Your task to perform on an android device: change alarm snooze length Image 0: 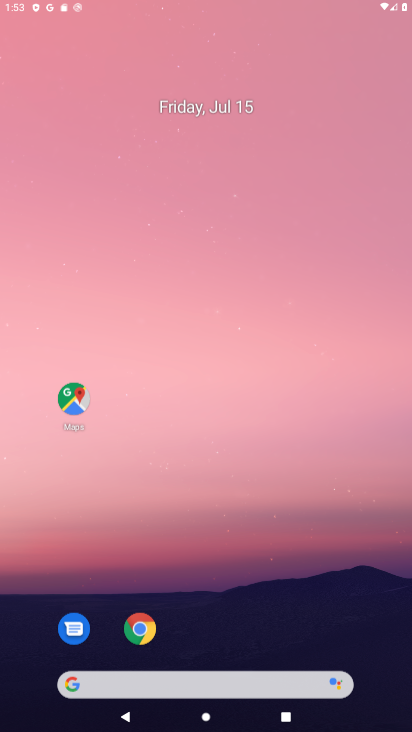
Step 0: press home button
Your task to perform on an android device: change alarm snooze length Image 1: 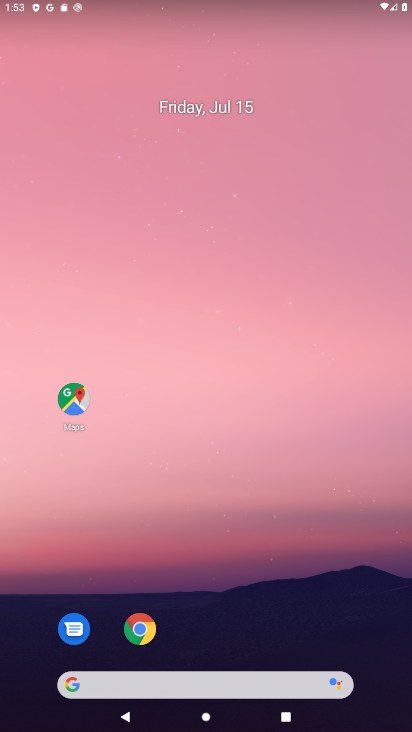
Step 1: drag from (213, 645) to (145, 88)
Your task to perform on an android device: change alarm snooze length Image 2: 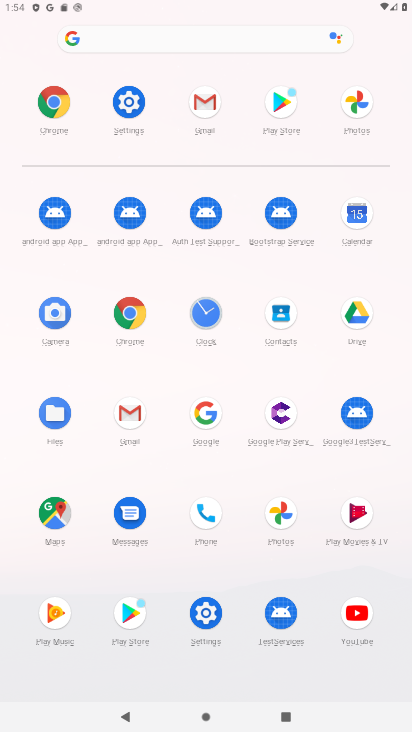
Step 2: click (198, 334)
Your task to perform on an android device: change alarm snooze length Image 3: 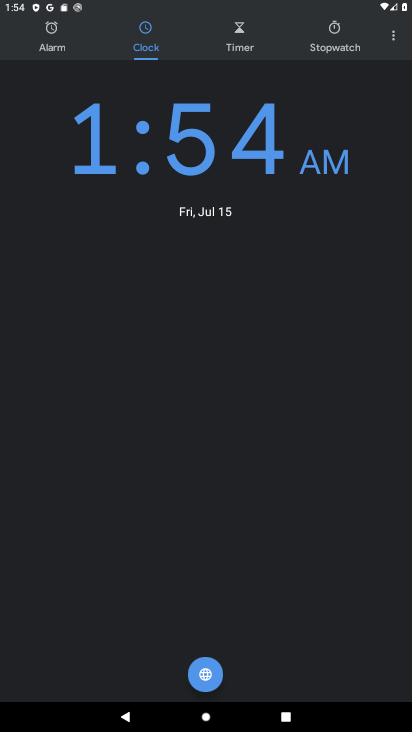
Step 3: click (391, 37)
Your task to perform on an android device: change alarm snooze length Image 4: 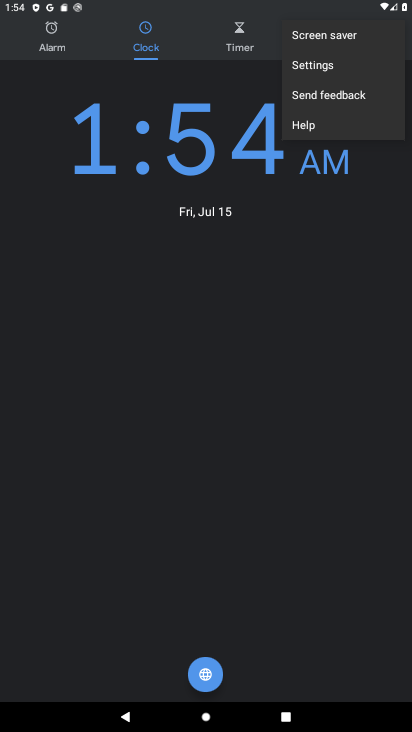
Step 4: click (336, 65)
Your task to perform on an android device: change alarm snooze length Image 5: 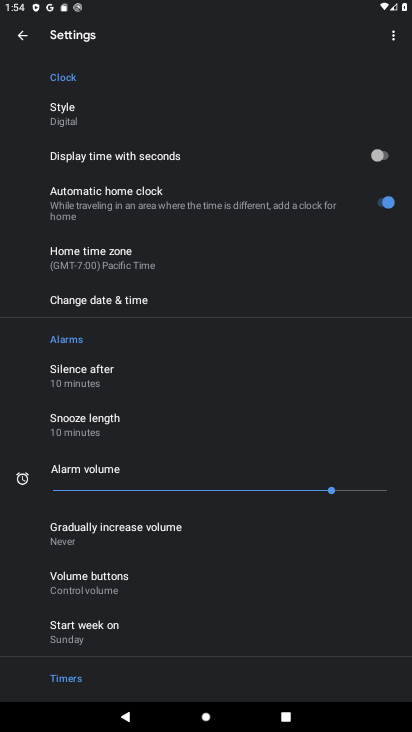
Step 5: click (85, 424)
Your task to perform on an android device: change alarm snooze length Image 6: 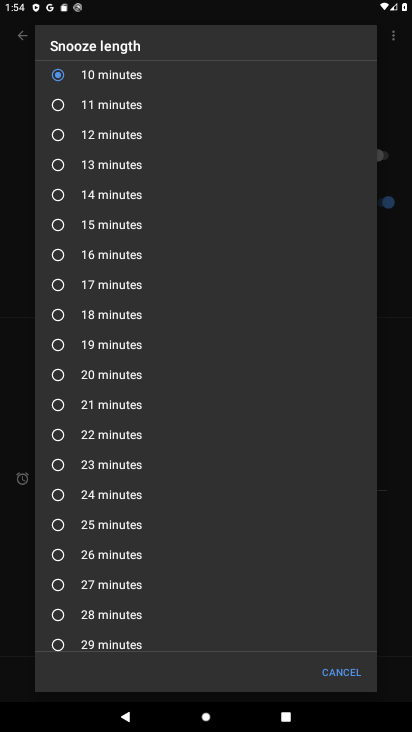
Step 6: click (54, 145)
Your task to perform on an android device: change alarm snooze length Image 7: 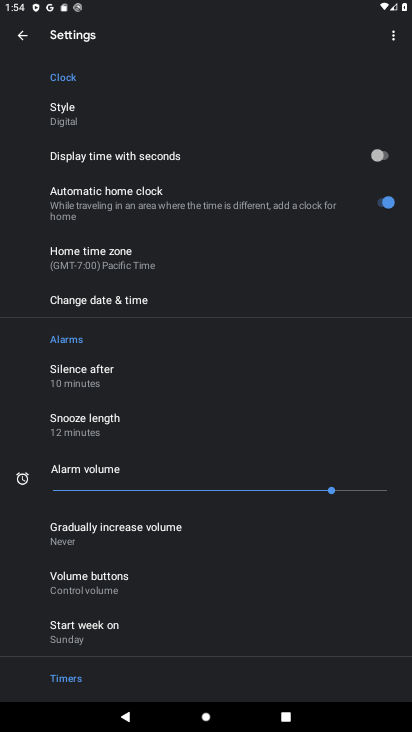
Step 7: task complete